Your task to perform on an android device: Open Chrome and go to settings Image 0: 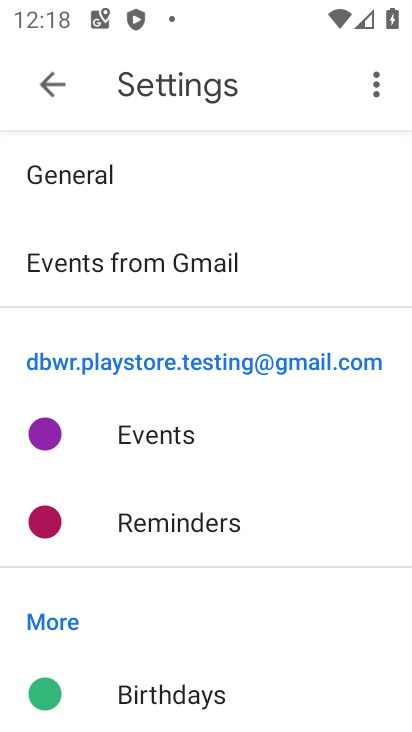
Step 0: press home button
Your task to perform on an android device: Open Chrome and go to settings Image 1: 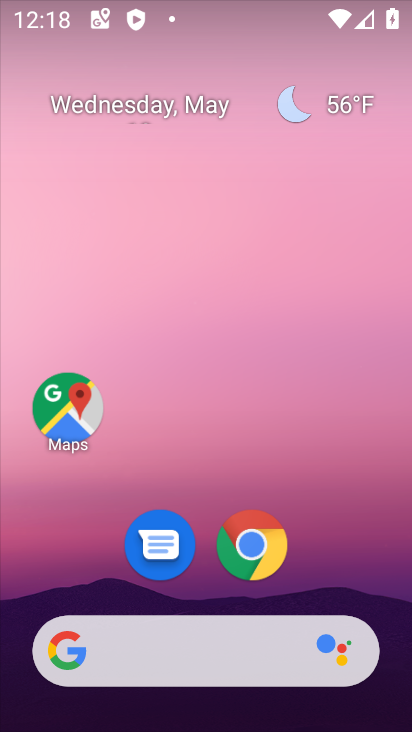
Step 1: click (253, 542)
Your task to perform on an android device: Open Chrome and go to settings Image 2: 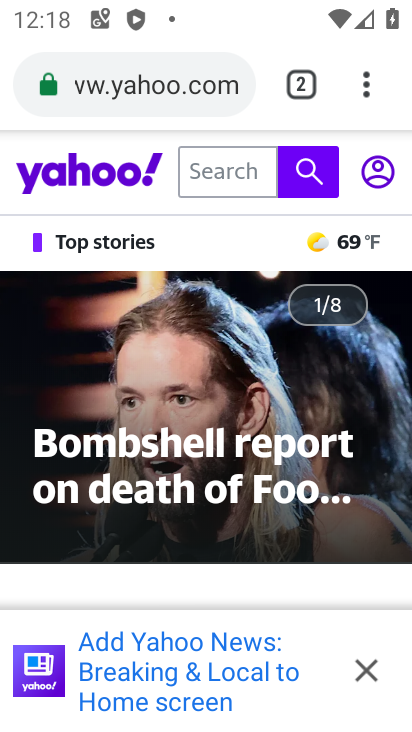
Step 2: click (368, 82)
Your task to perform on an android device: Open Chrome and go to settings Image 3: 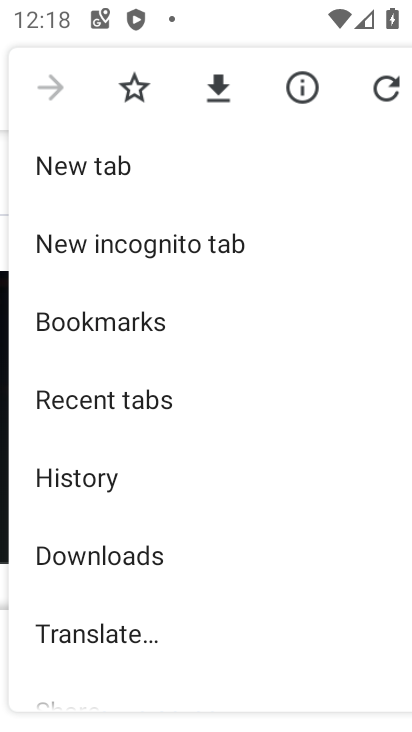
Step 3: drag from (181, 577) to (222, 461)
Your task to perform on an android device: Open Chrome and go to settings Image 4: 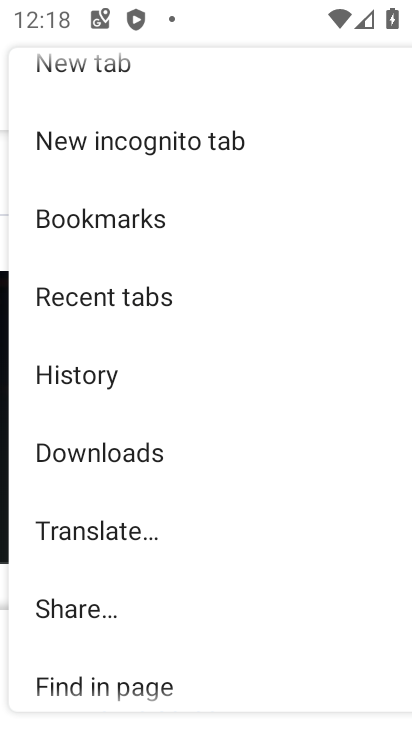
Step 4: drag from (146, 572) to (193, 497)
Your task to perform on an android device: Open Chrome and go to settings Image 5: 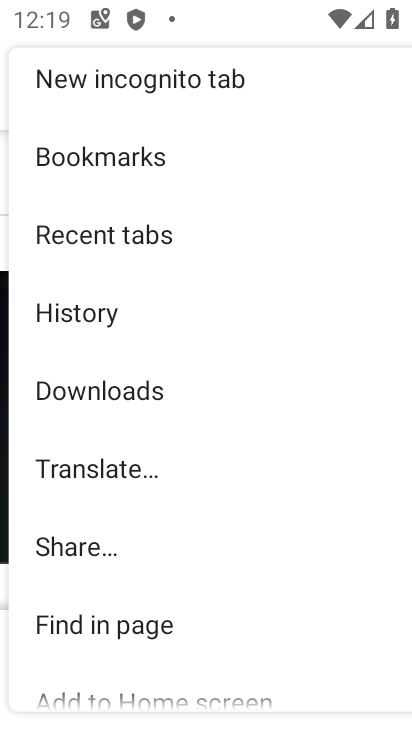
Step 5: drag from (156, 563) to (222, 451)
Your task to perform on an android device: Open Chrome and go to settings Image 6: 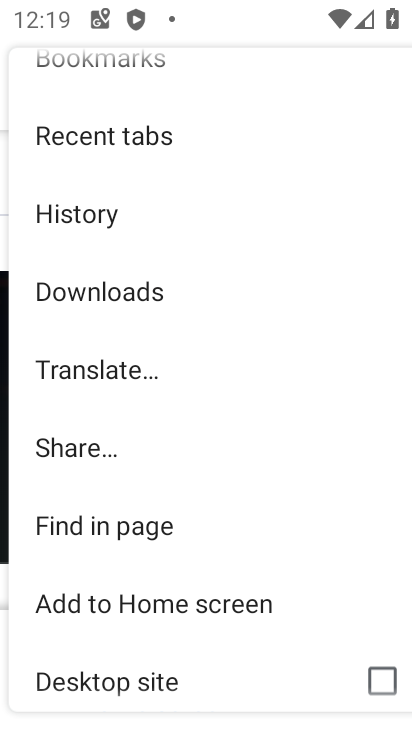
Step 6: drag from (179, 563) to (269, 432)
Your task to perform on an android device: Open Chrome and go to settings Image 7: 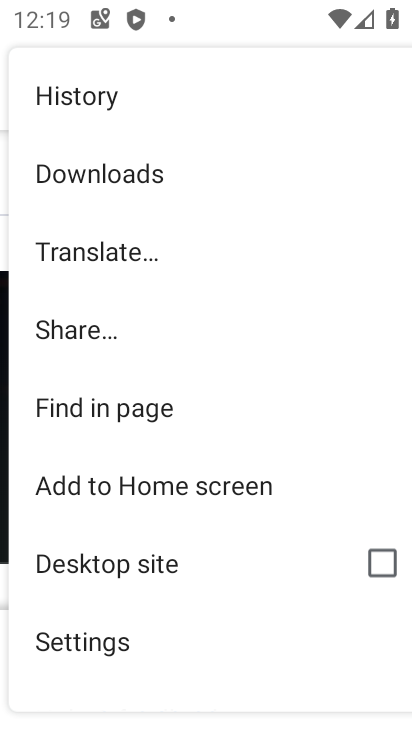
Step 7: drag from (149, 617) to (240, 456)
Your task to perform on an android device: Open Chrome and go to settings Image 8: 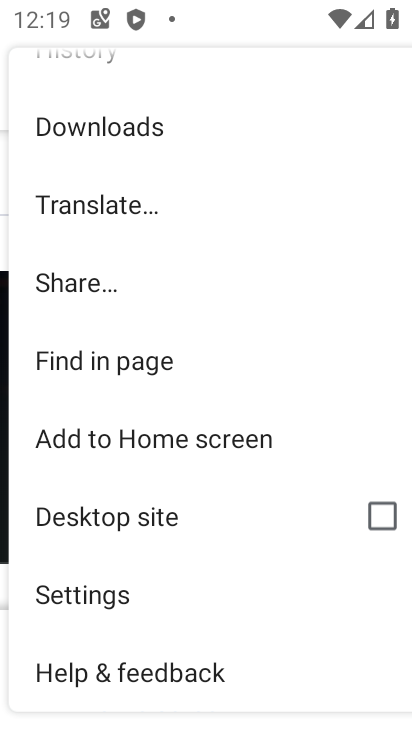
Step 8: click (106, 596)
Your task to perform on an android device: Open Chrome and go to settings Image 9: 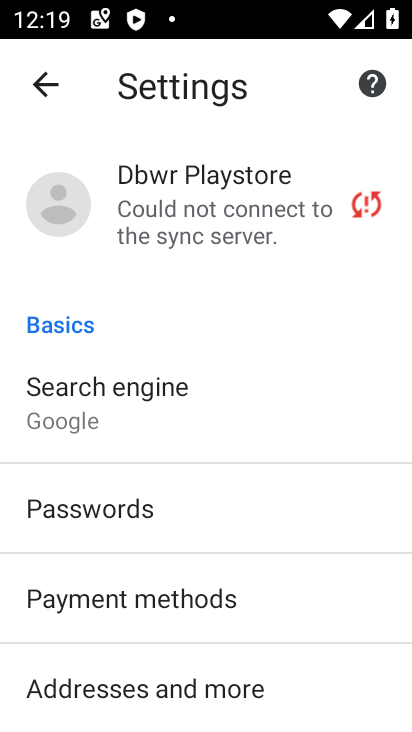
Step 9: task complete